Your task to perform on an android device: change alarm snooze length Image 0: 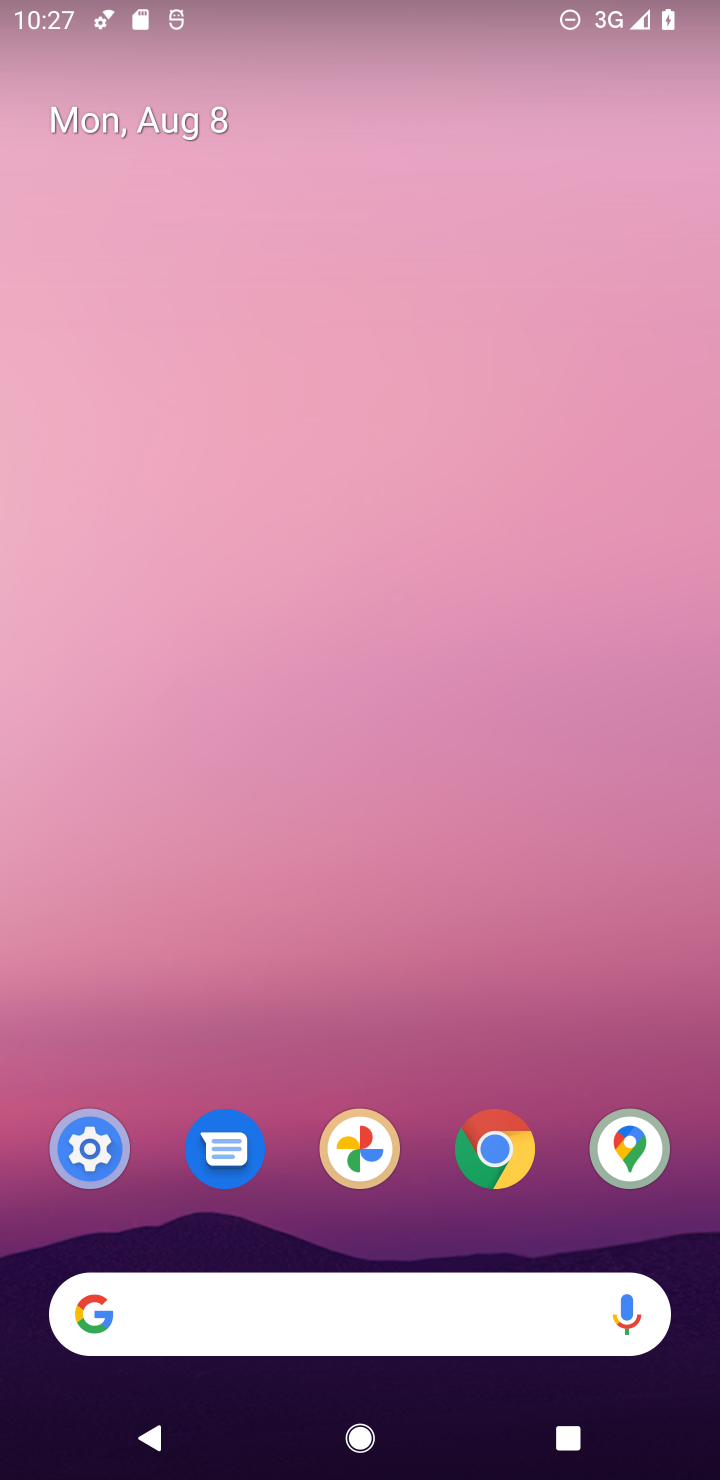
Step 0: drag from (249, 1282) to (257, 491)
Your task to perform on an android device: change alarm snooze length Image 1: 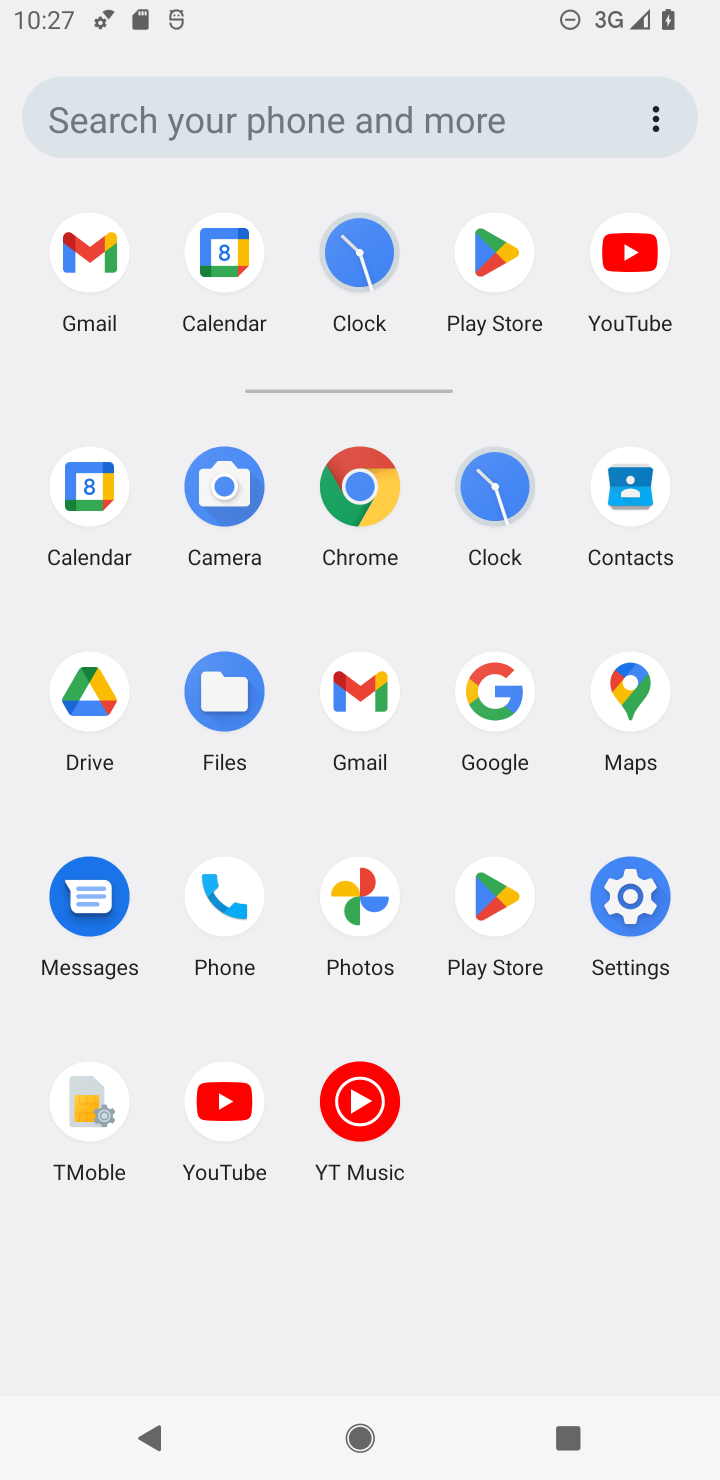
Step 1: click (495, 489)
Your task to perform on an android device: change alarm snooze length Image 2: 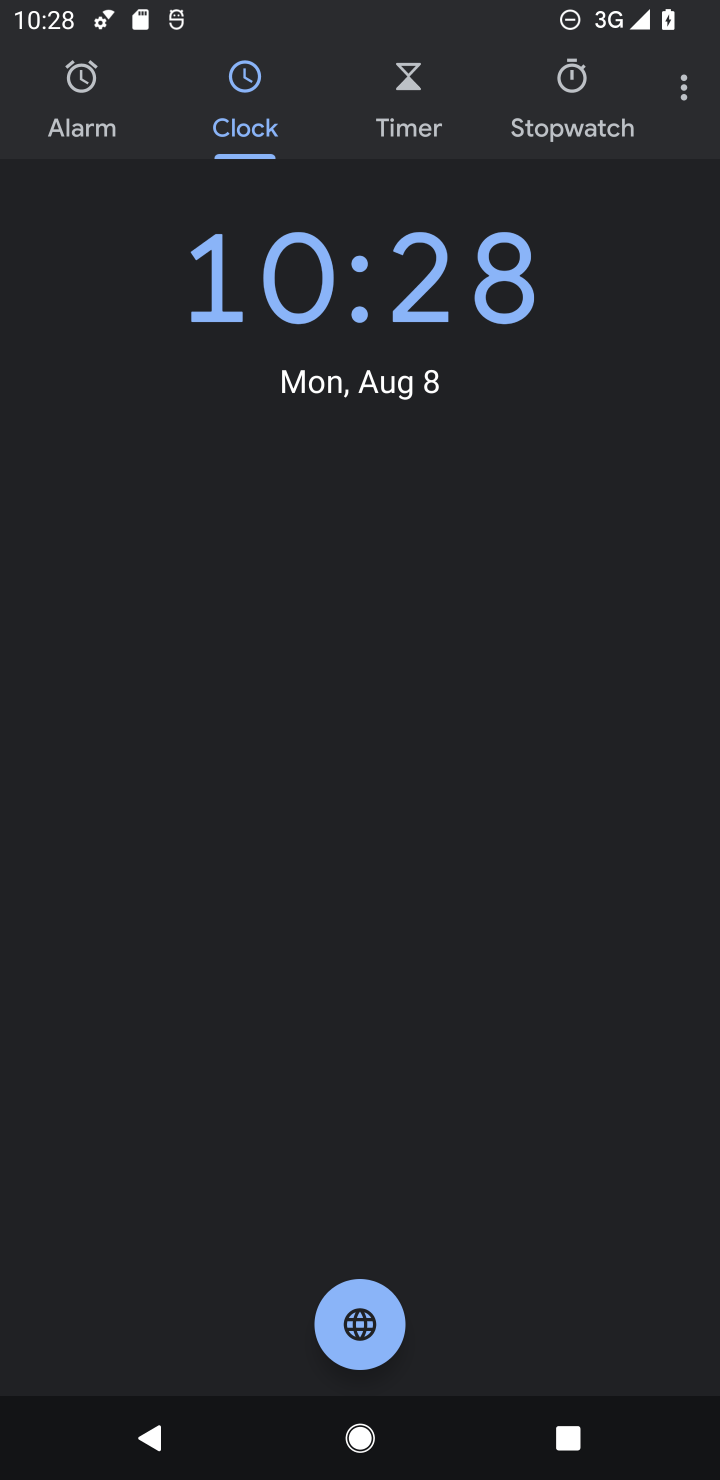
Step 2: click (675, 90)
Your task to perform on an android device: change alarm snooze length Image 3: 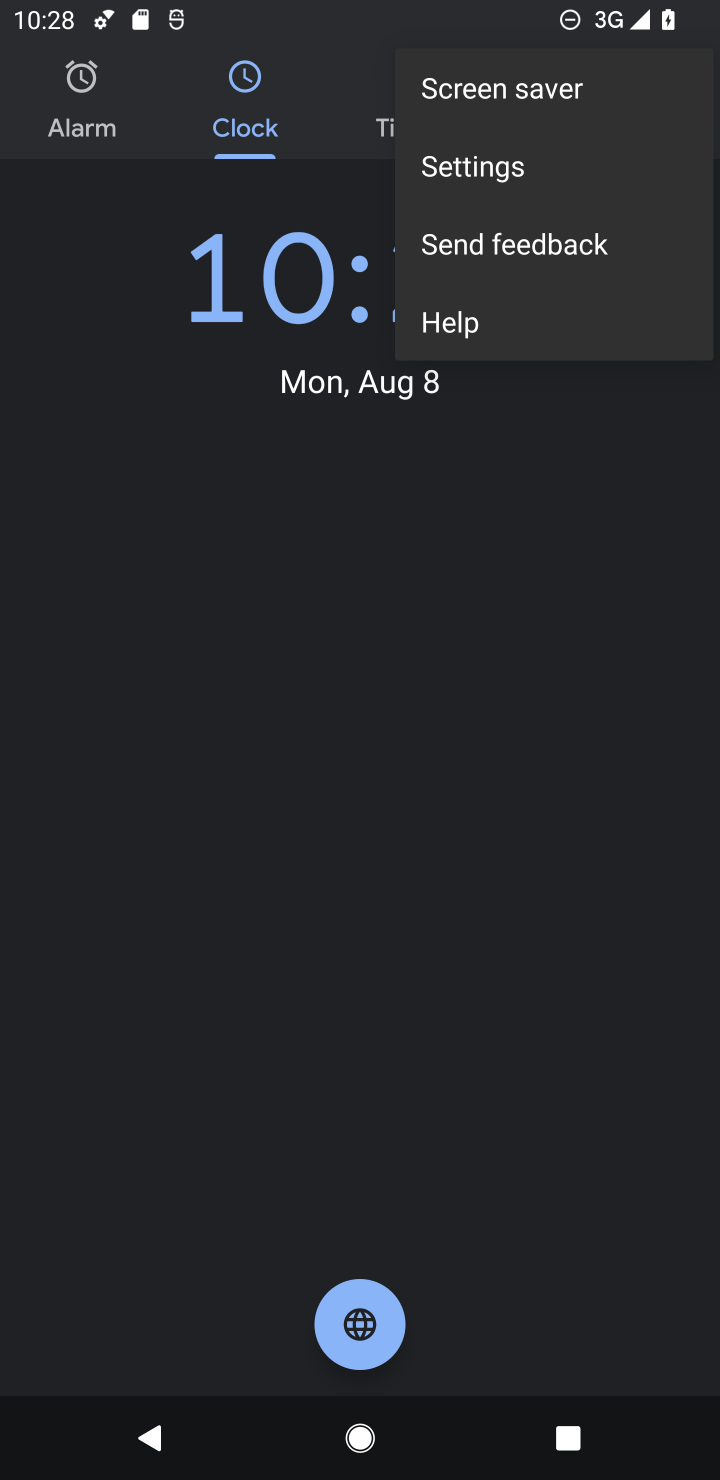
Step 3: click (456, 183)
Your task to perform on an android device: change alarm snooze length Image 4: 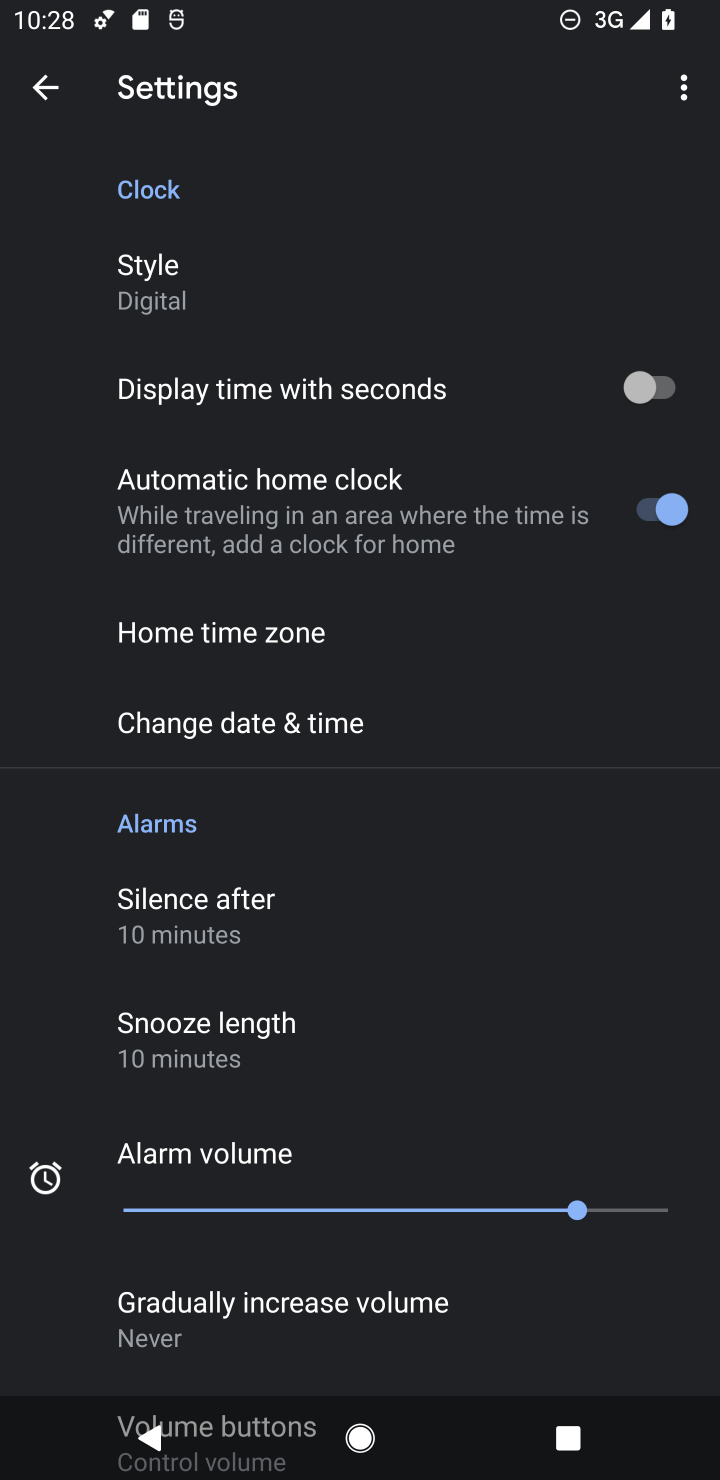
Step 4: click (217, 1028)
Your task to perform on an android device: change alarm snooze length Image 5: 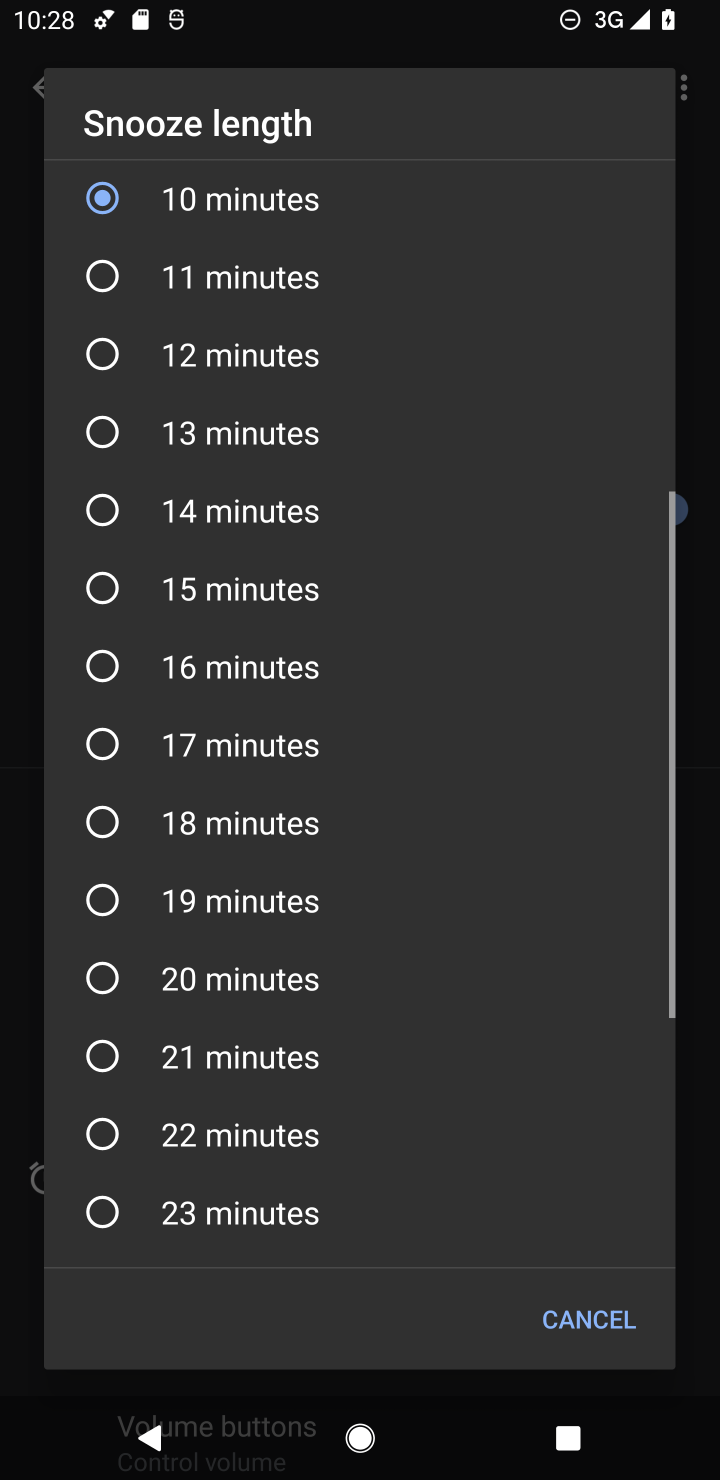
Step 5: click (186, 445)
Your task to perform on an android device: change alarm snooze length Image 6: 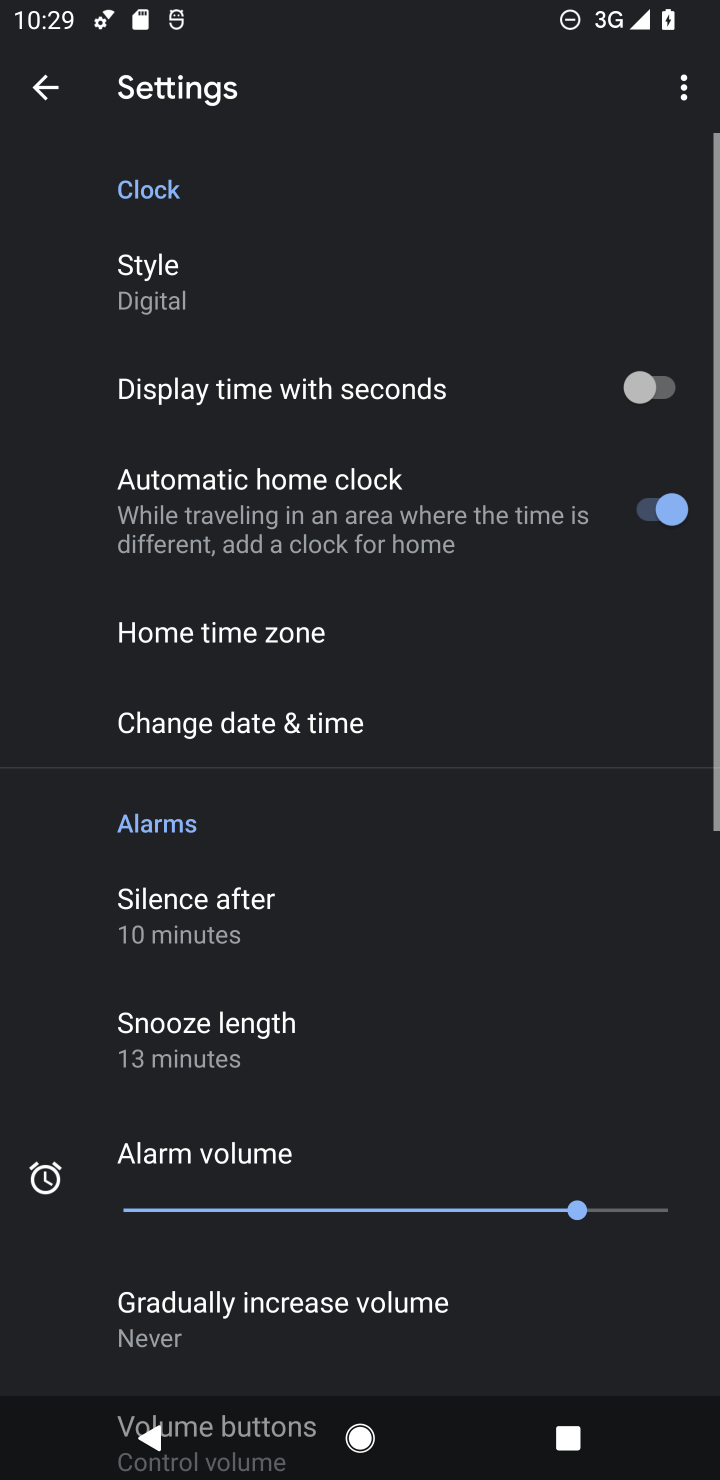
Step 6: task complete